Your task to perform on an android device: Go to Amazon Image 0: 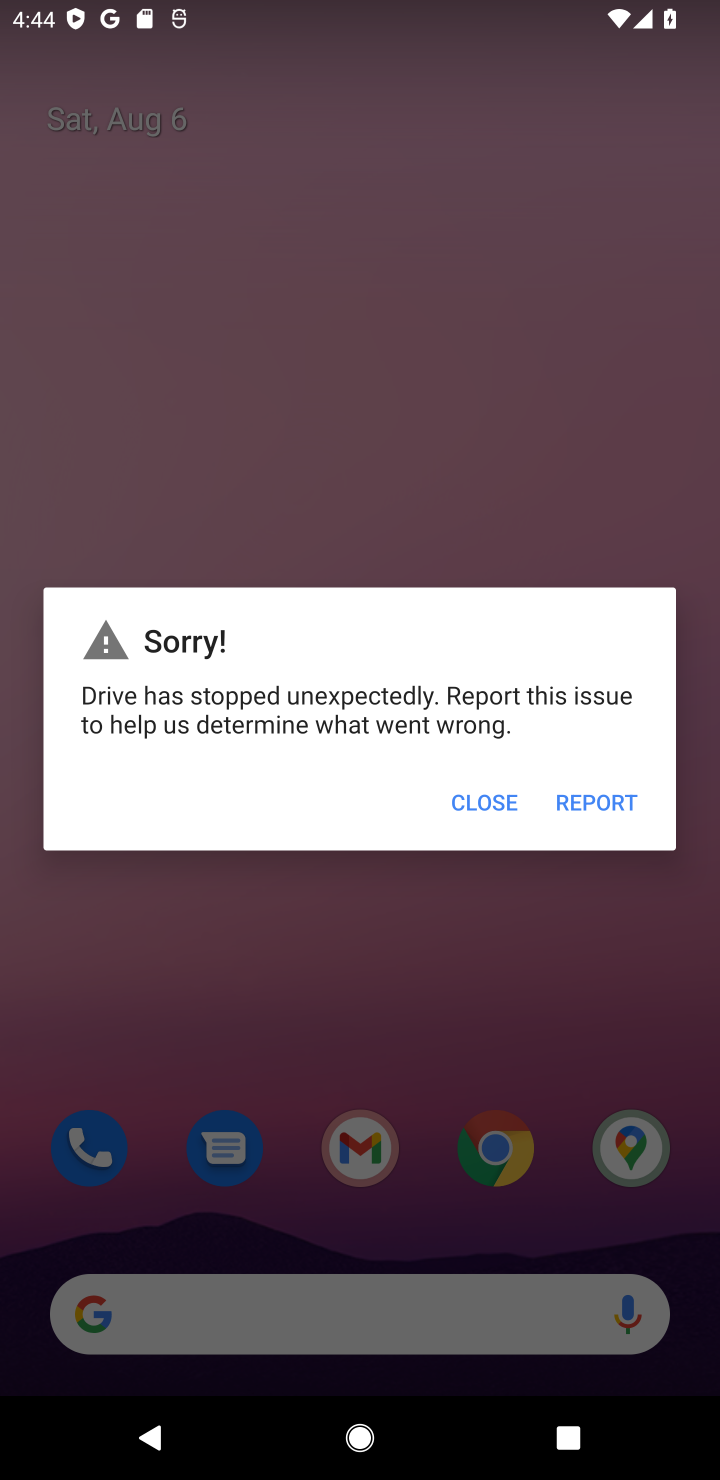
Step 0: click (472, 787)
Your task to perform on an android device: Go to Amazon Image 1: 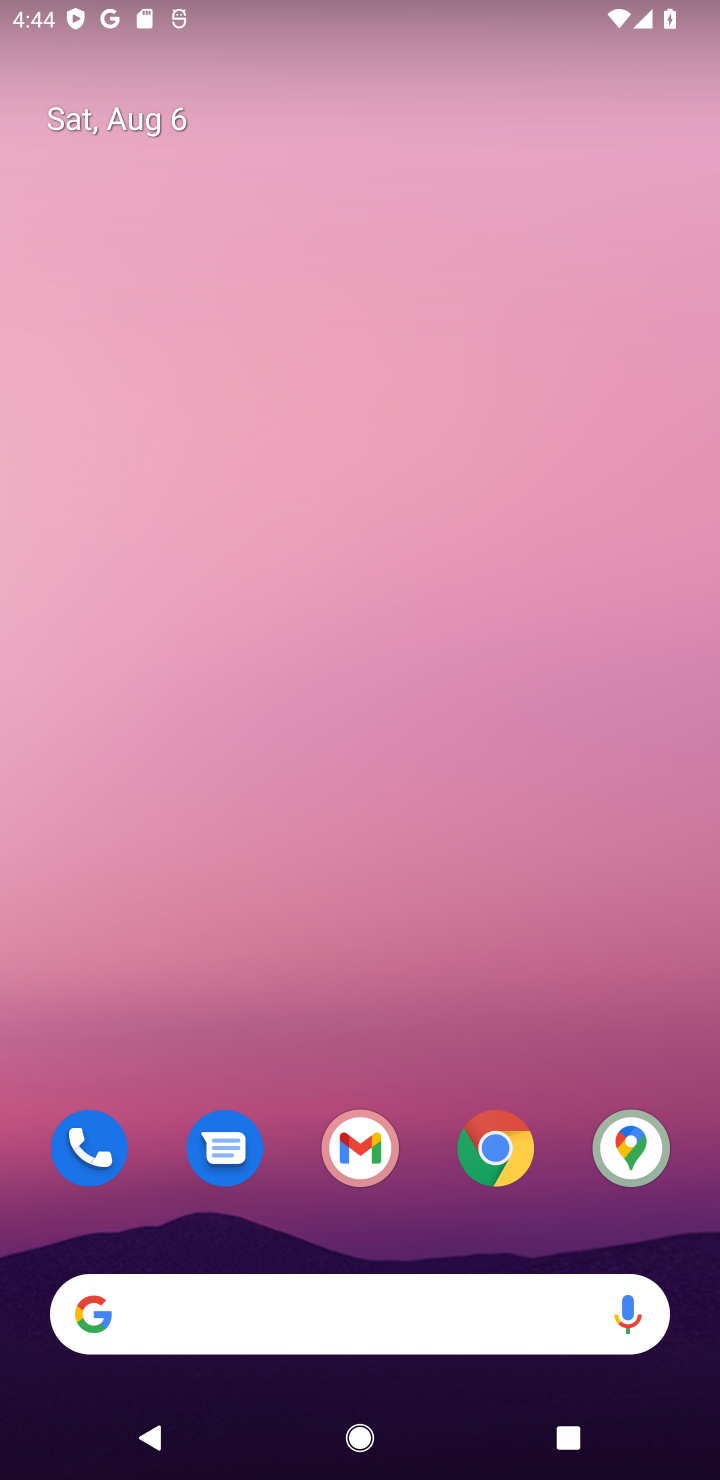
Step 1: drag from (422, 1268) to (462, 129)
Your task to perform on an android device: Go to Amazon Image 2: 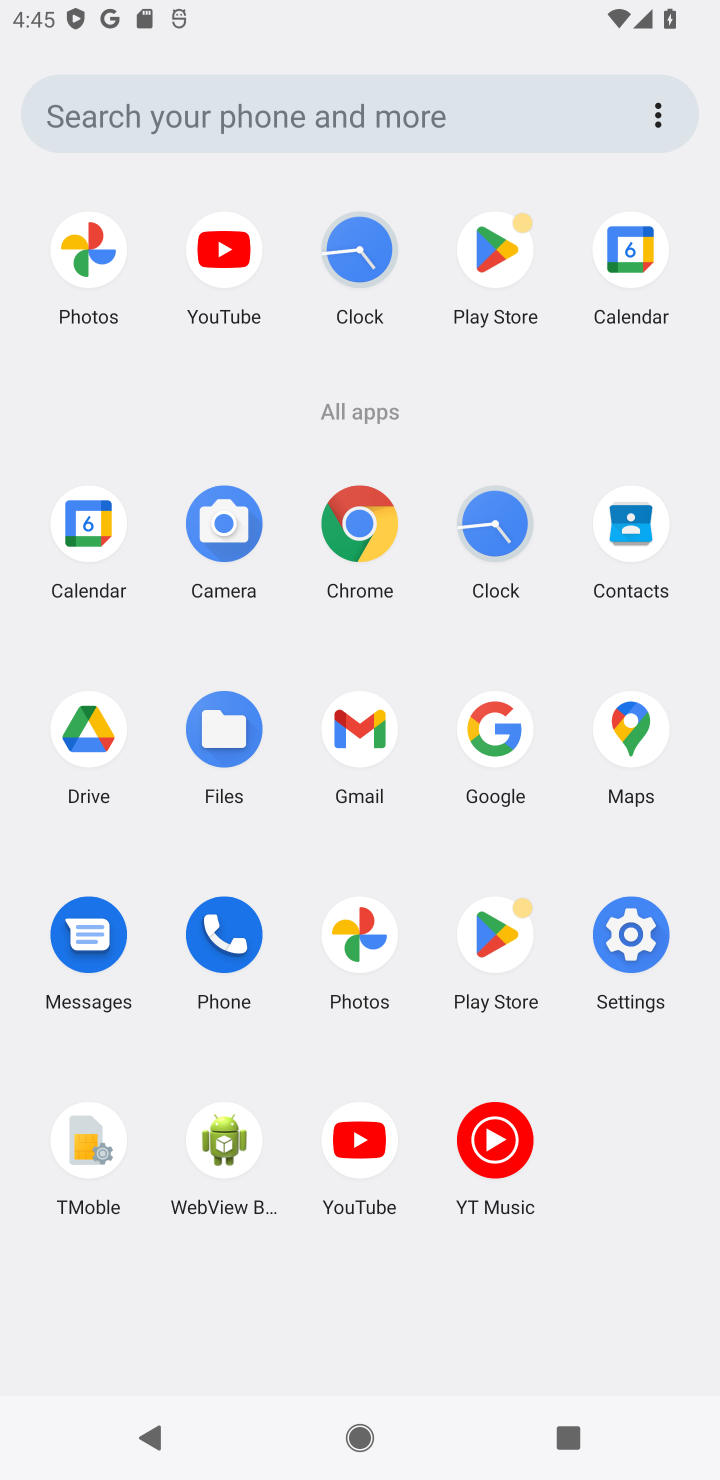
Step 2: click (369, 548)
Your task to perform on an android device: Go to Amazon Image 3: 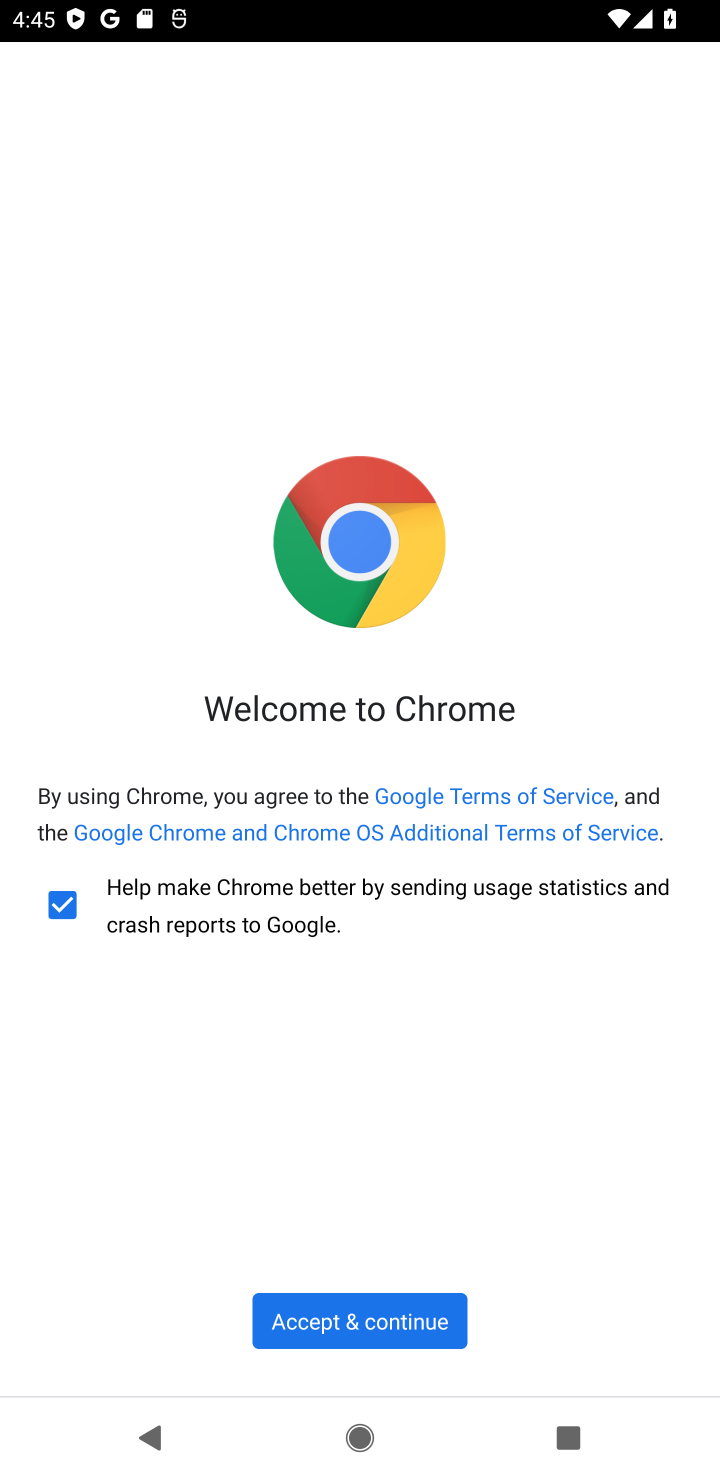
Step 3: click (339, 1335)
Your task to perform on an android device: Go to Amazon Image 4: 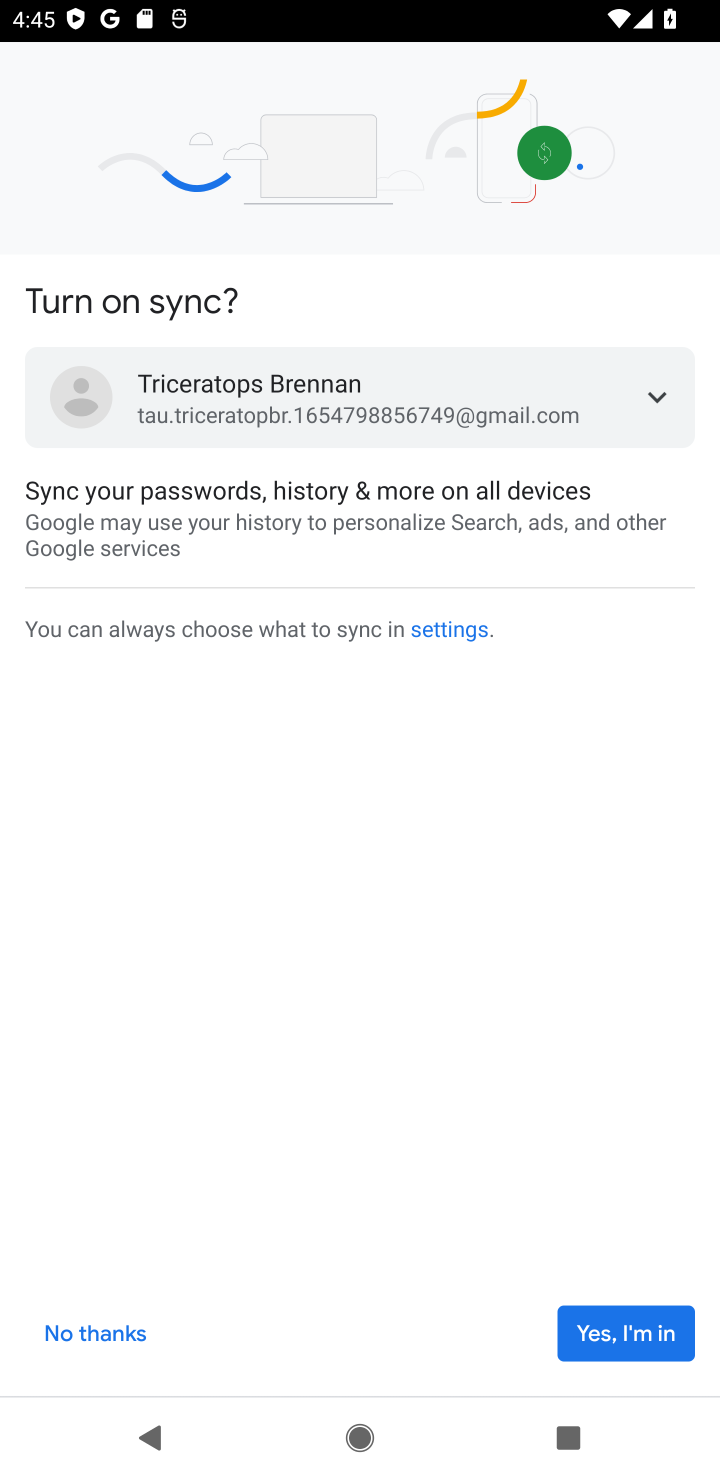
Step 4: click (595, 1342)
Your task to perform on an android device: Go to Amazon Image 5: 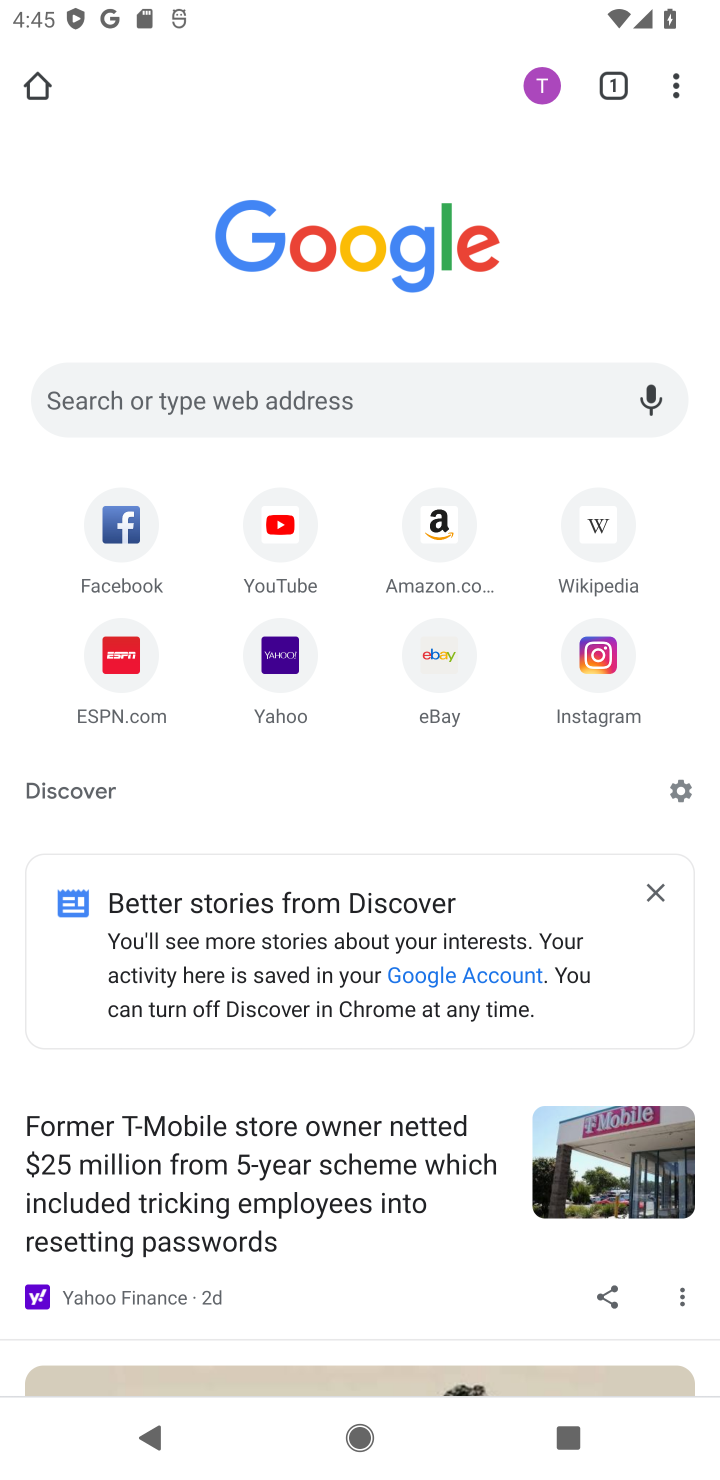
Step 5: click (407, 537)
Your task to perform on an android device: Go to Amazon Image 6: 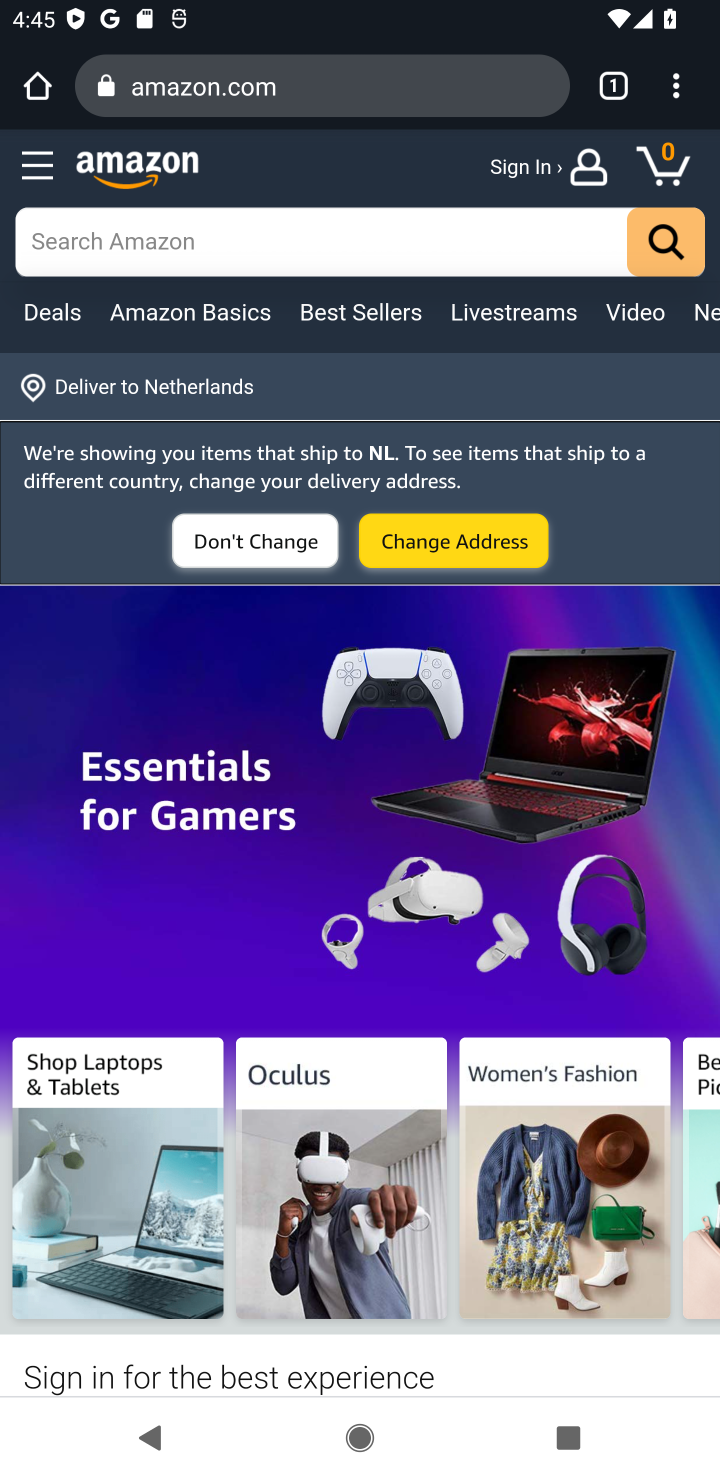
Step 6: task complete